Your task to perform on an android device: Go to battery settings Image 0: 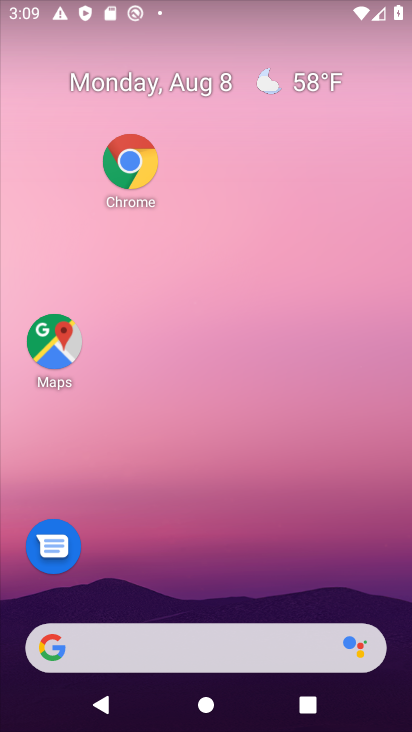
Step 0: press home button
Your task to perform on an android device: Go to battery settings Image 1: 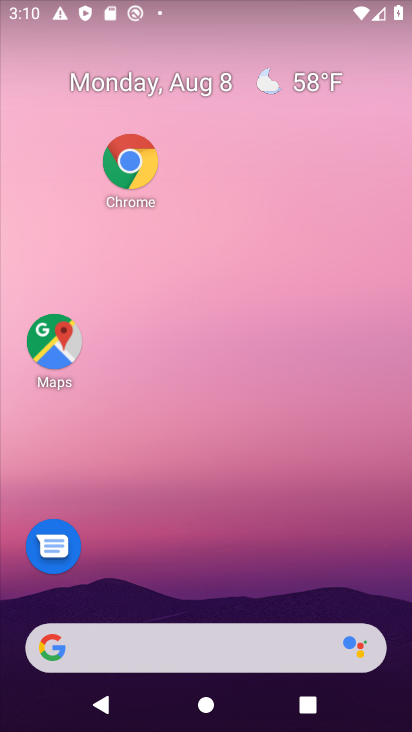
Step 1: drag from (225, 14) to (196, 477)
Your task to perform on an android device: Go to battery settings Image 2: 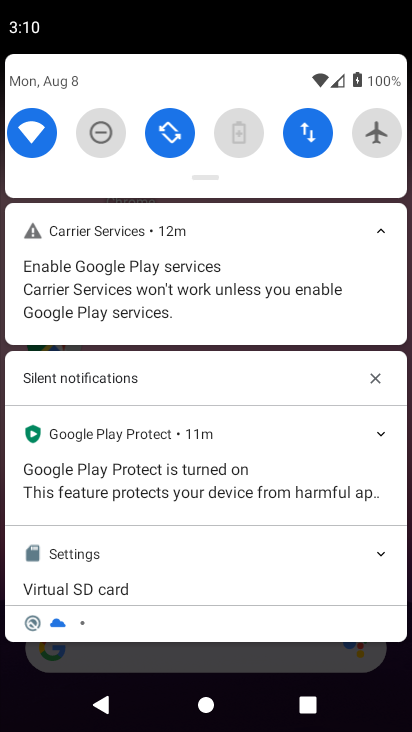
Step 2: click (248, 143)
Your task to perform on an android device: Go to battery settings Image 3: 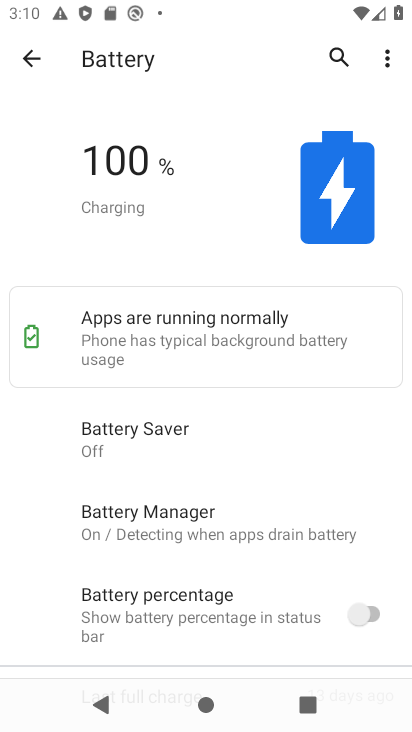
Step 3: task complete